Your task to perform on an android device: When is my next appointment? Image 0: 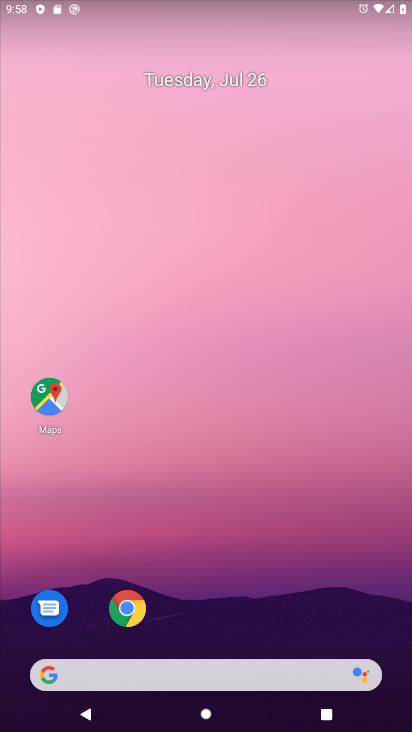
Step 0: drag from (237, 708) to (231, 0)
Your task to perform on an android device: When is my next appointment? Image 1: 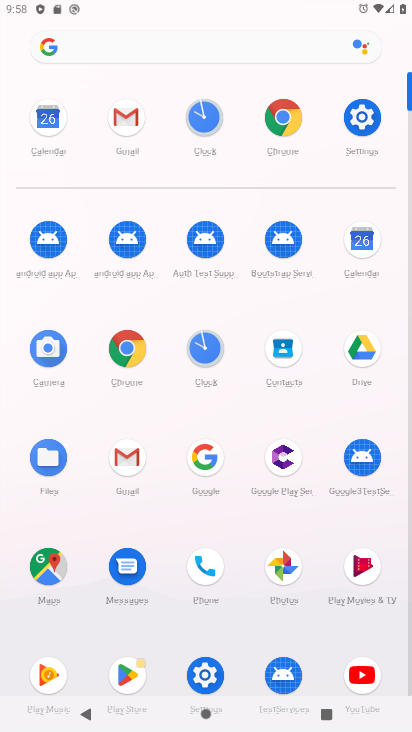
Step 1: click (364, 241)
Your task to perform on an android device: When is my next appointment? Image 2: 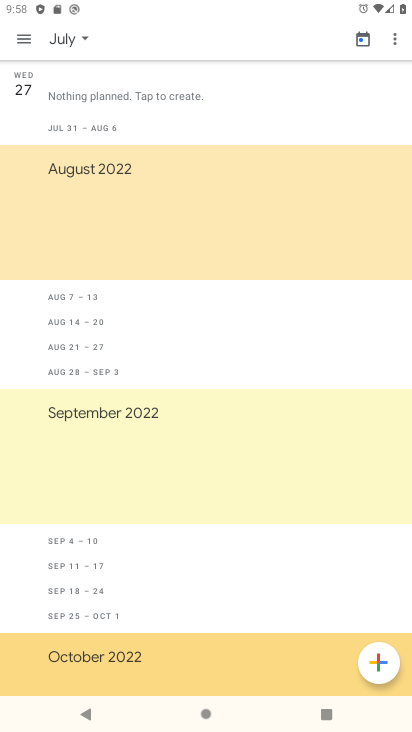
Step 2: click (88, 37)
Your task to perform on an android device: When is my next appointment? Image 3: 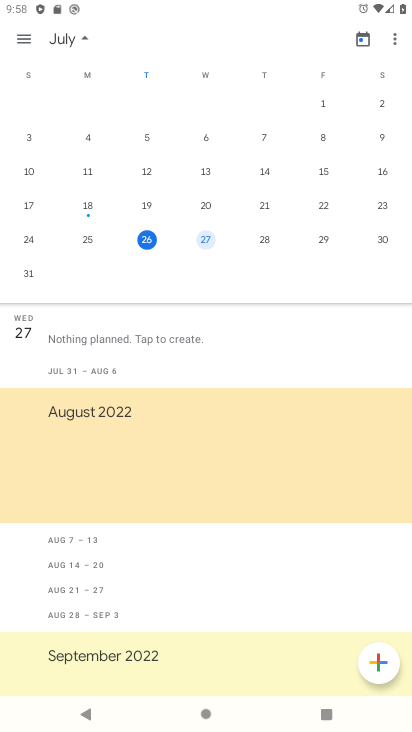
Step 3: click (205, 237)
Your task to perform on an android device: When is my next appointment? Image 4: 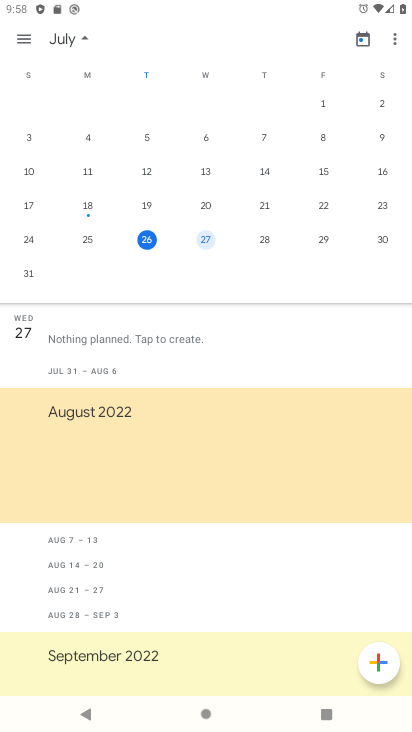
Step 4: click (204, 237)
Your task to perform on an android device: When is my next appointment? Image 5: 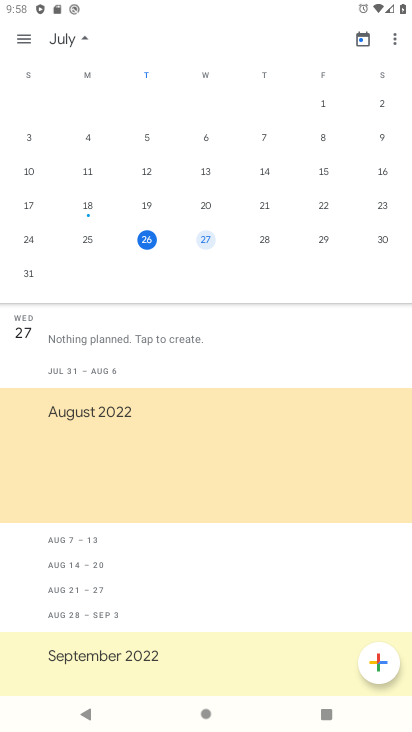
Step 5: click (204, 237)
Your task to perform on an android device: When is my next appointment? Image 6: 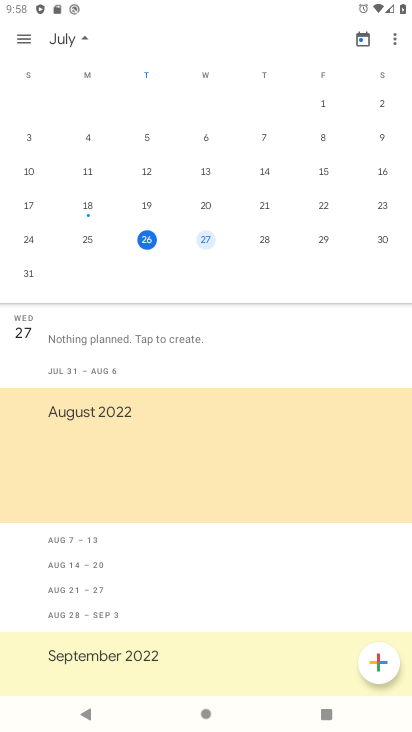
Step 6: click (21, 38)
Your task to perform on an android device: When is my next appointment? Image 7: 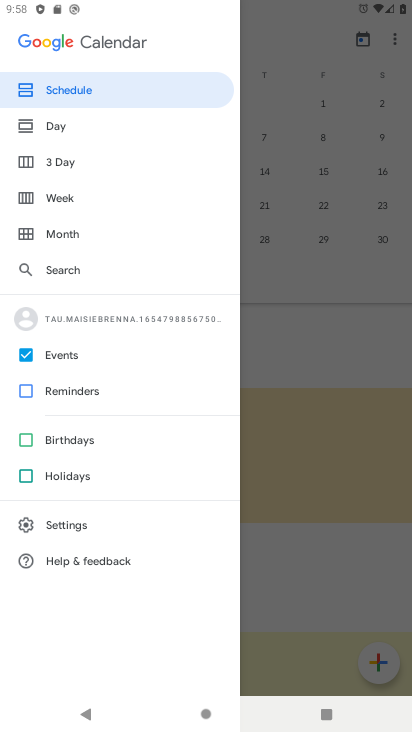
Step 7: click (22, 477)
Your task to perform on an android device: When is my next appointment? Image 8: 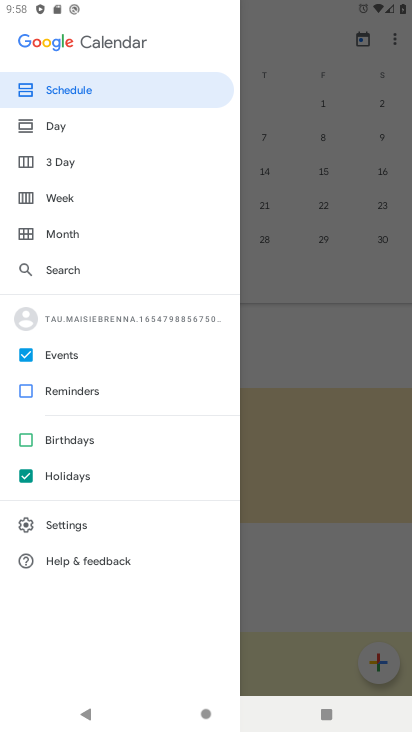
Step 8: click (24, 437)
Your task to perform on an android device: When is my next appointment? Image 9: 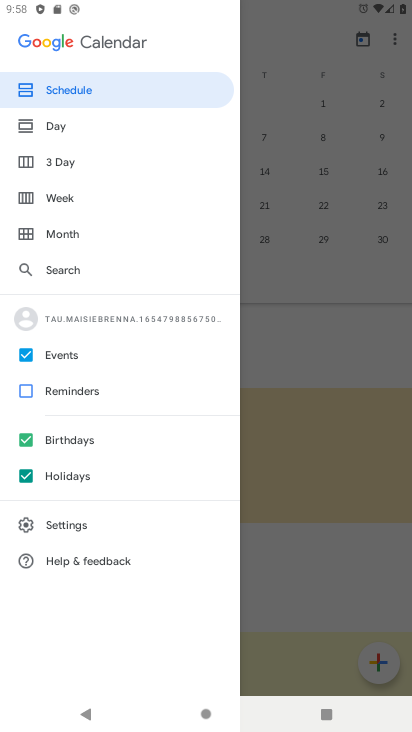
Step 9: click (26, 387)
Your task to perform on an android device: When is my next appointment? Image 10: 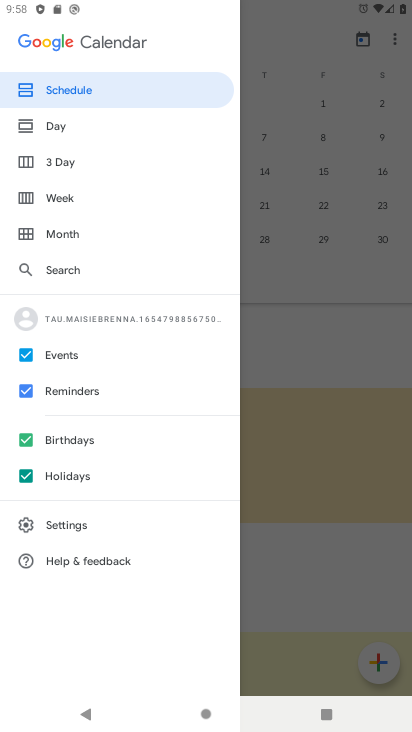
Step 10: click (289, 266)
Your task to perform on an android device: When is my next appointment? Image 11: 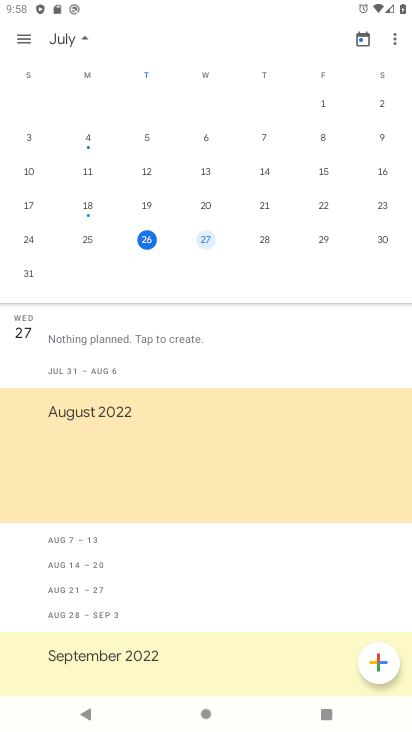
Step 11: click (205, 234)
Your task to perform on an android device: When is my next appointment? Image 12: 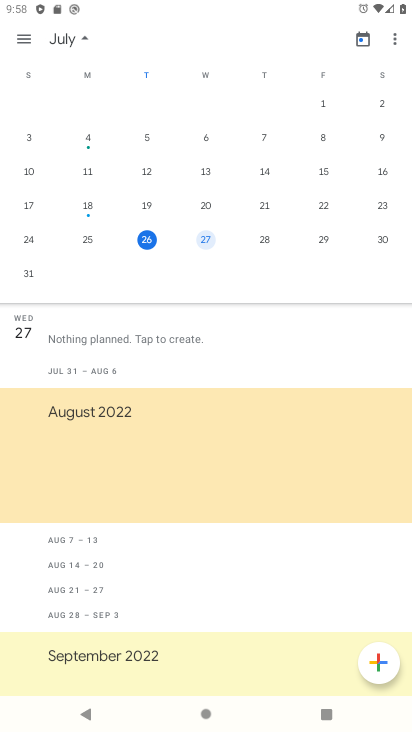
Step 12: click (205, 235)
Your task to perform on an android device: When is my next appointment? Image 13: 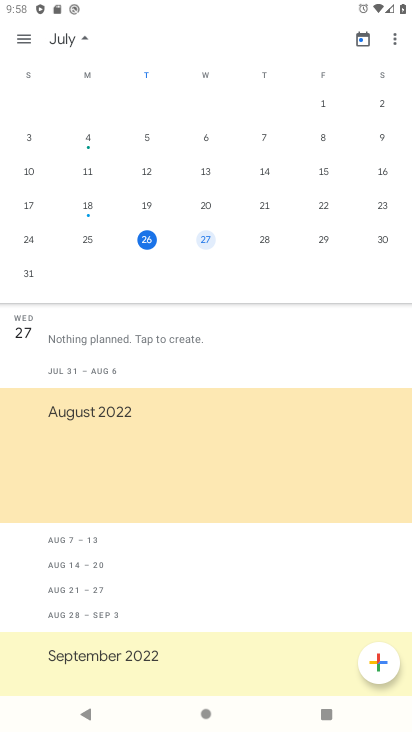
Step 13: click (17, 321)
Your task to perform on an android device: When is my next appointment? Image 14: 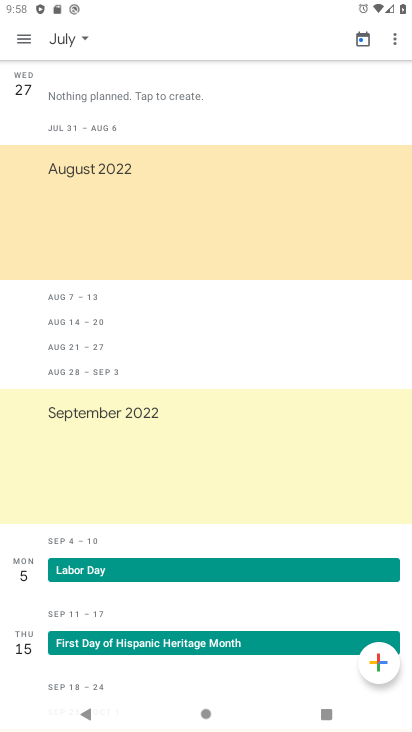
Step 14: task complete